Your task to perform on an android device: Show me recent news Image 0: 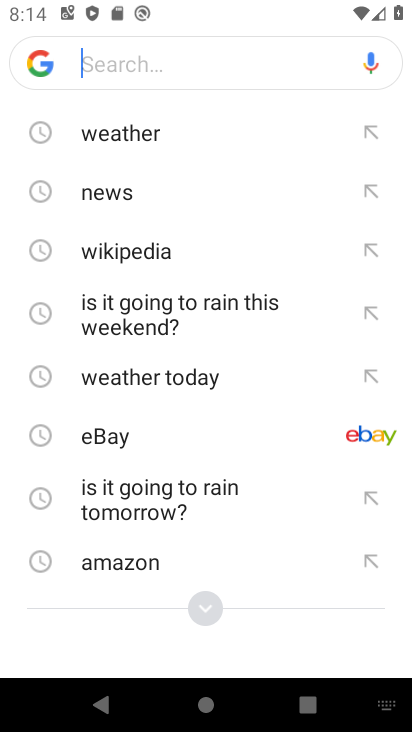
Step 0: press home button
Your task to perform on an android device: Show me recent news Image 1: 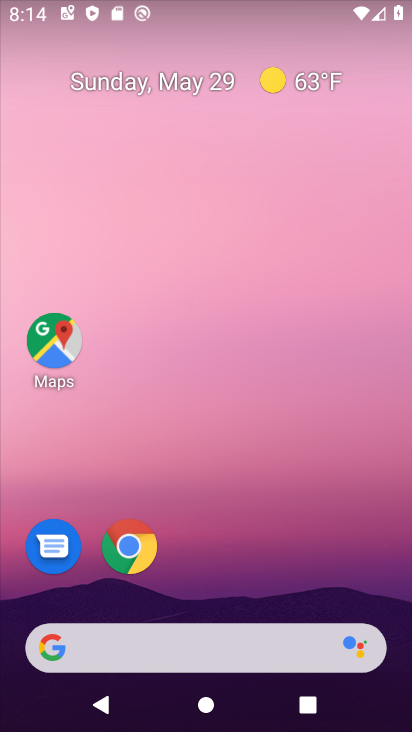
Step 1: click (57, 652)
Your task to perform on an android device: Show me recent news Image 2: 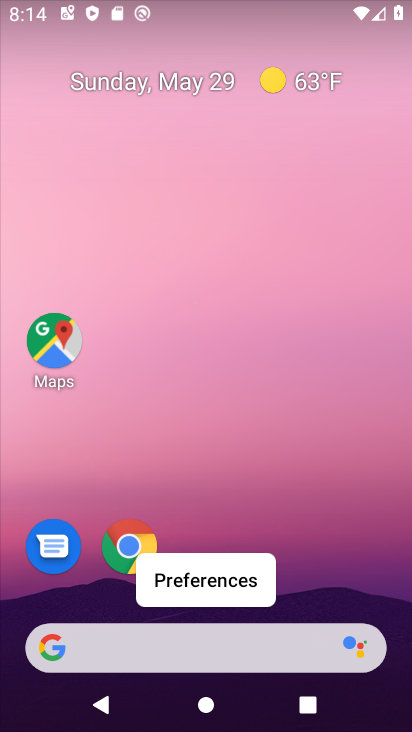
Step 2: click (60, 645)
Your task to perform on an android device: Show me recent news Image 3: 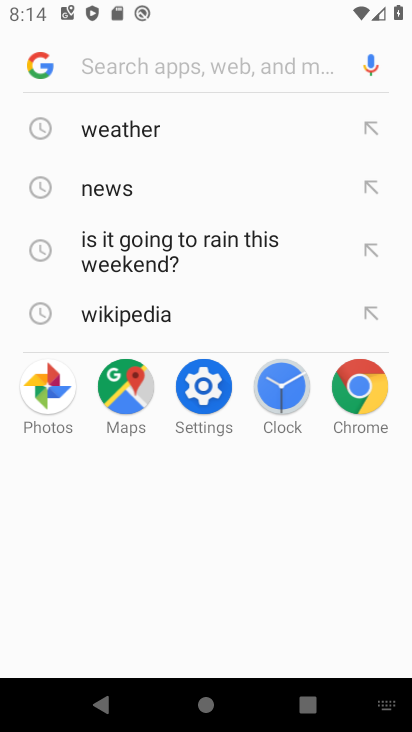
Step 3: click (104, 189)
Your task to perform on an android device: Show me recent news Image 4: 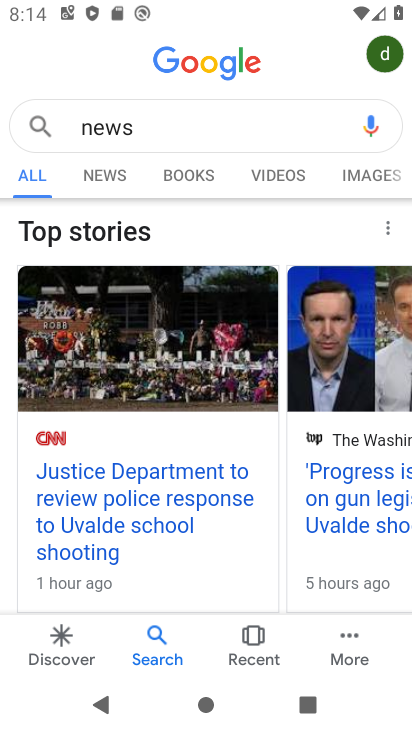
Step 4: click (106, 175)
Your task to perform on an android device: Show me recent news Image 5: 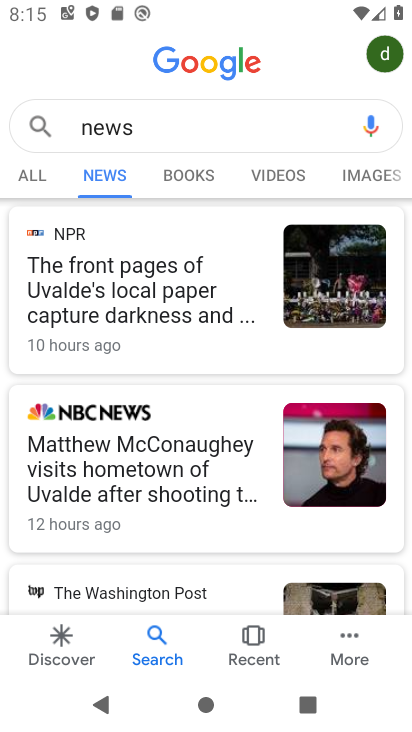
Step 5: task complete